Your task to perform on an android device: Go to Amazon Image 0: 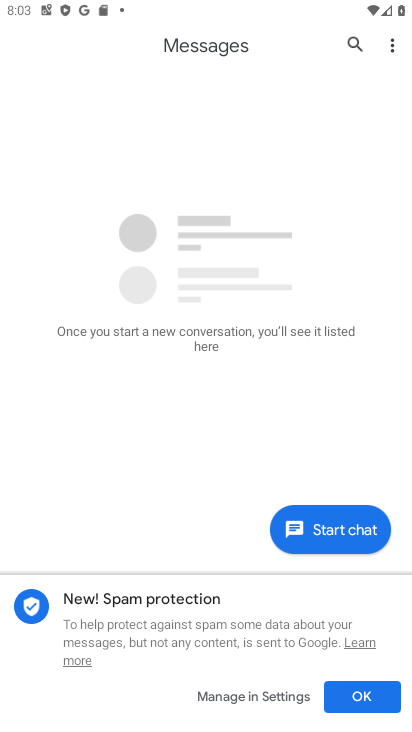
Step 0: drag from (189, 644) to (271, 635)
Your task to perform on an android device: Go to Amazon Image 1: 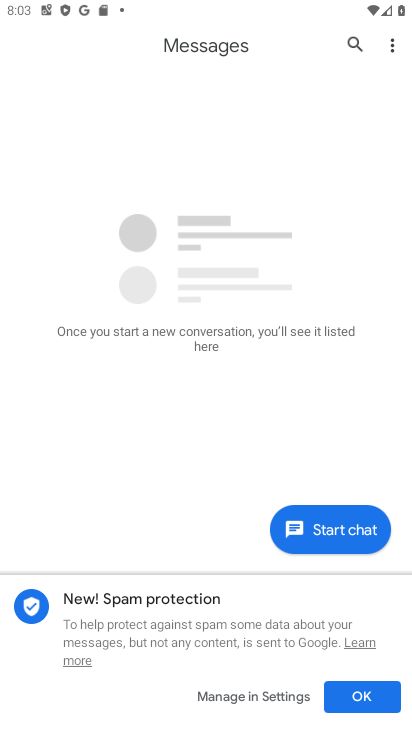
Step 1: press home button
Your task to perform on an android device: Go to Amazon Image 2: 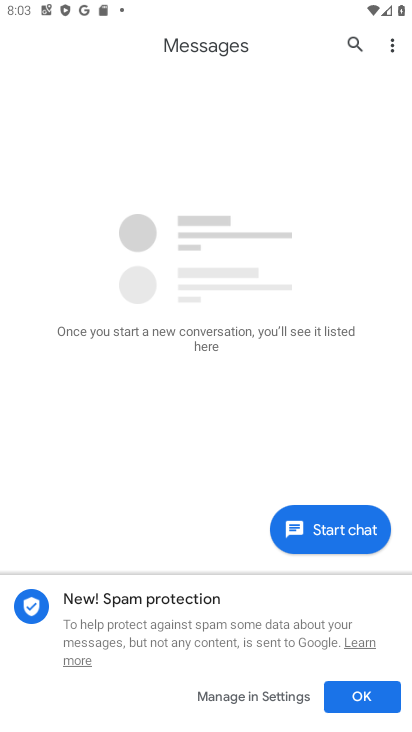
Step 2: drag from (271, 635) to (405, 515)
Your task to perform on an android device: Go to Amazon Image 3: 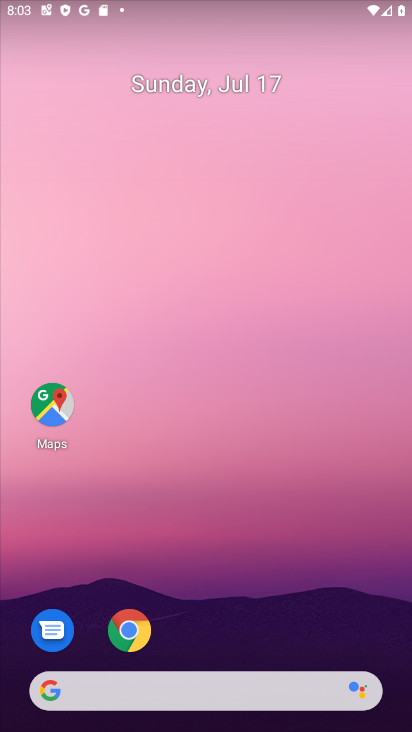
Step 3: drag from (188, 645) to (193, 15)
Your task to perform on an android device: Go to Amazon Image 4: 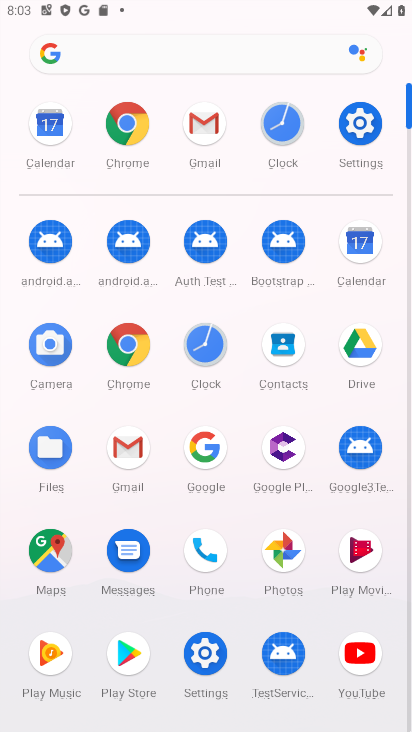
Step 4: click (124, 110)
Your task to perform on an android device: Go to Amazon Image 5: 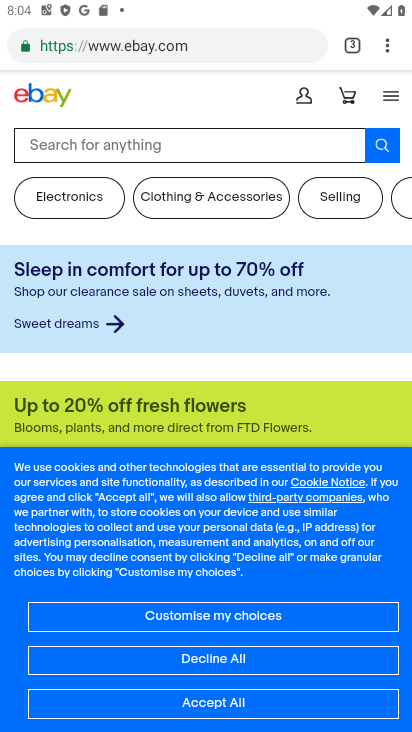
Step 5: press back button
Your task to perform on an android device: Go to Amazon Image 6: 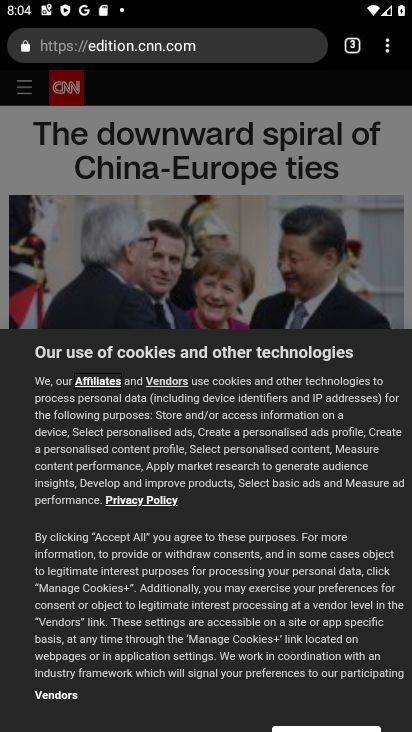
Step 6: press back button
Your task to perform on an android device: Go to Amazon Image 7: 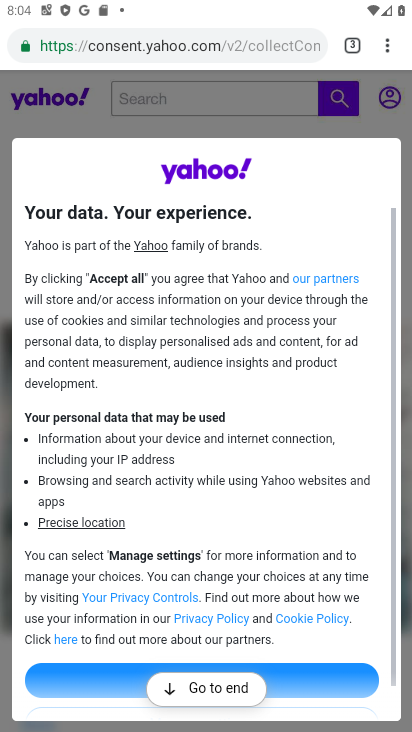
Step 7: press back button
Your task to perform on an android device: Go to Amazon Image 8: 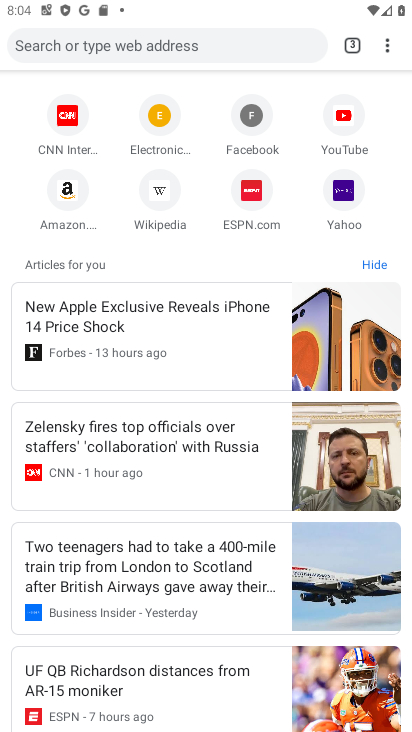
Step 8: click (74, 190)
Your task to perform on an android device: Go to Amazon Image 9: 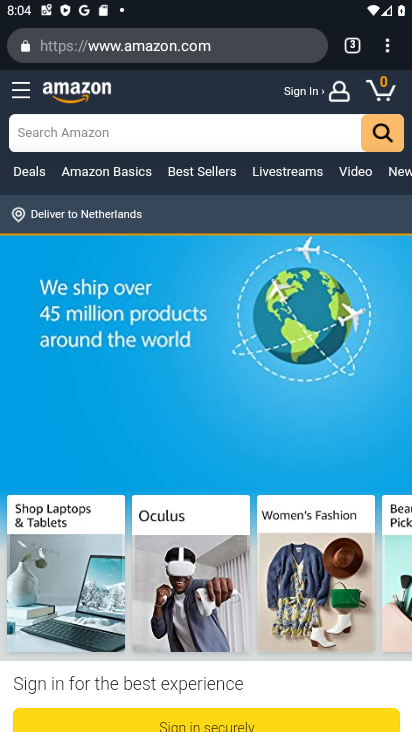
Step 9: task complete